Your task to perform on an android device: Search for sushi restaurants on Maps Image 0: 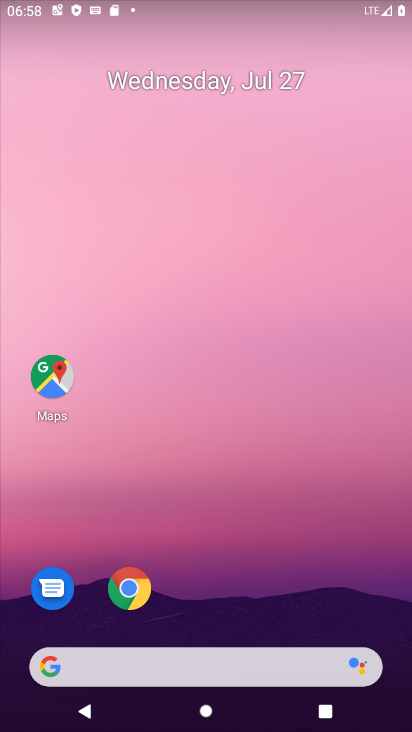
Step 0: drag from (214, 671) to (281, 1)
Your task to perform on an android device: Search for sushi restaurants on Maps Image 1: 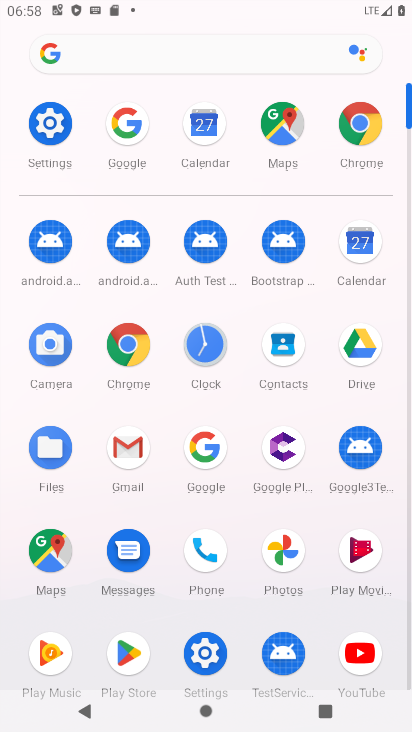
Step 1: click (55, 545)
Your task to perform on an android device: Search for sushi restaurants on Maps Image 2: 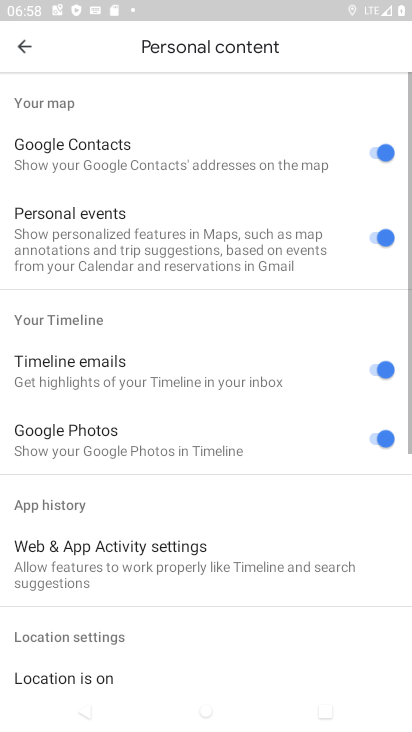
Step 2: press back button
Your task to perform on an android device: Search for sushi restaurants on Maps Image 3: 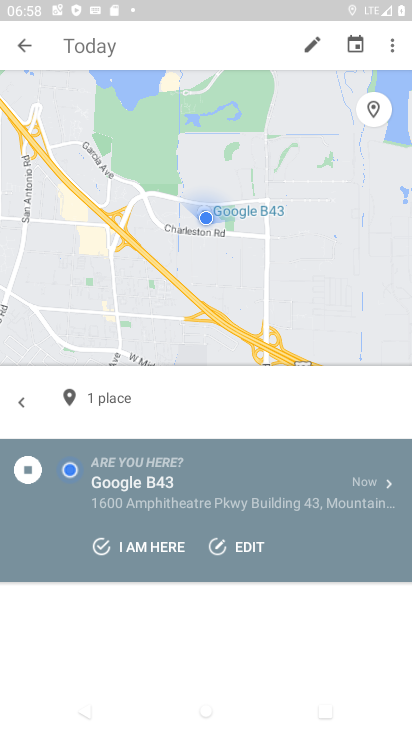
Step 3: press back button
Your task to perform on an android device: Search for sushi restaurants on Maps Image 4: 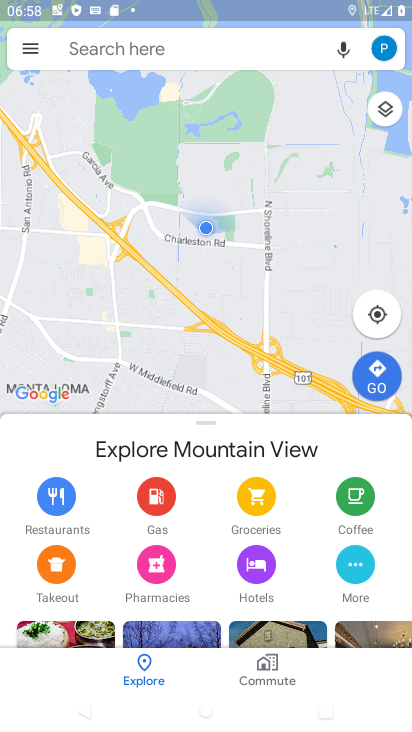
Step 4: click (252, 40)
Your task to perform on an android device: Search for sushi restaurants on Maps Image 5: 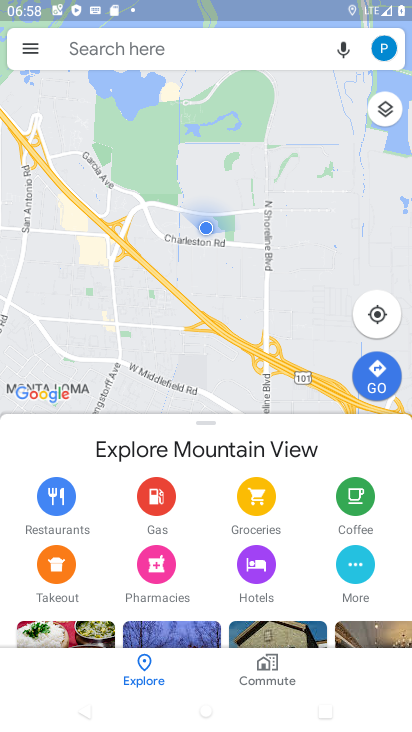
Step 5: click (252, 40)
Your task to perform on an android device: Search for sushi restaurants on Maps Image 6: 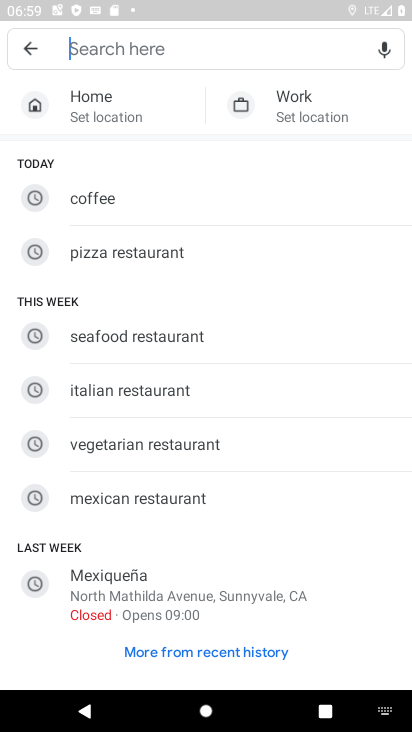
Step 6: type "sushi restau"
Your task to perform on an android device: Search for sushi restaurants on Maps Image 7: 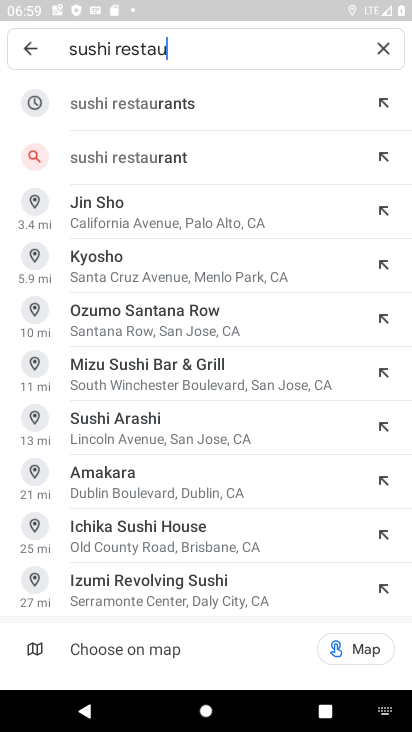
Step 7: click (179, 102)
Your task to perform on an android device: Search for sushi restaurants on Maps Image 8: 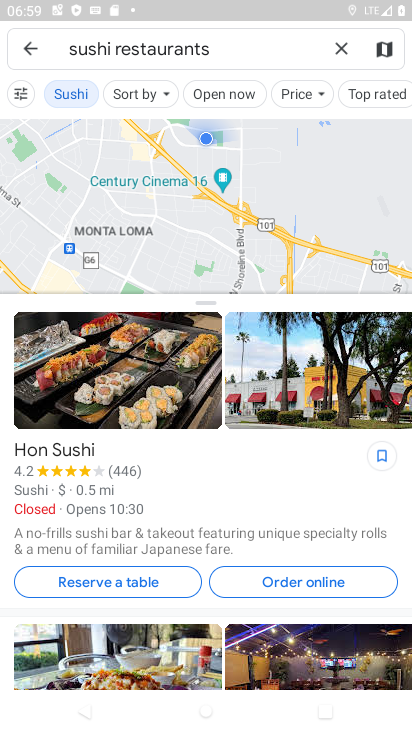
Step 8: task complete